Your task to perform on an android device: read, delete, or share a saved page in the chrome app Image 0: 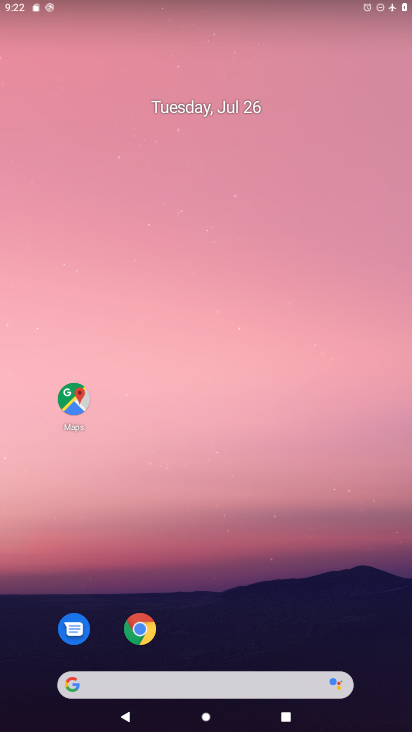
Step 0: click (144, 632)
Your task to perform on an android device: read, delete, or share a saved page in the chrome app Image 1: 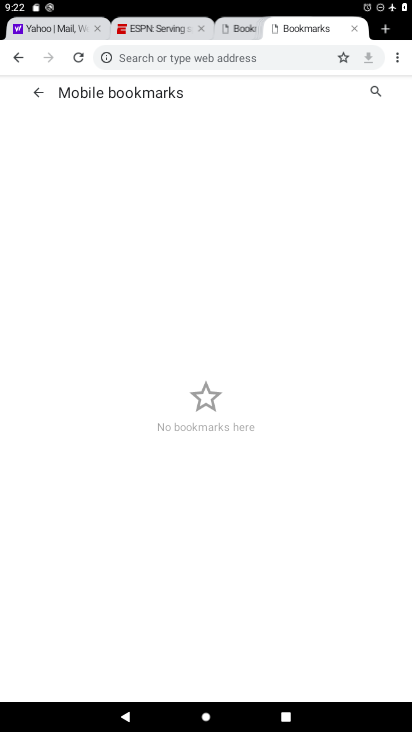
Step 1: drag from (393, 52) to (291, 262)
Your task to perform on an android device: read, delete, or share a saved page in the chrome app Image 2: 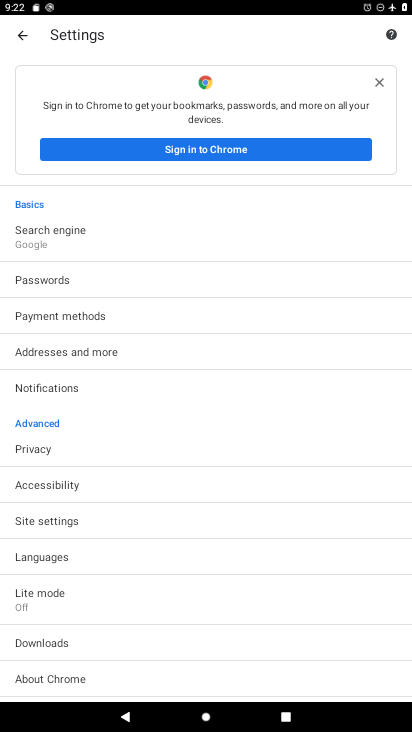
Step 2: drag from (69, 600) to (57, 320)
Your task to perform on an android device: read, delete, or share a saved page in the chrome app Image 3: 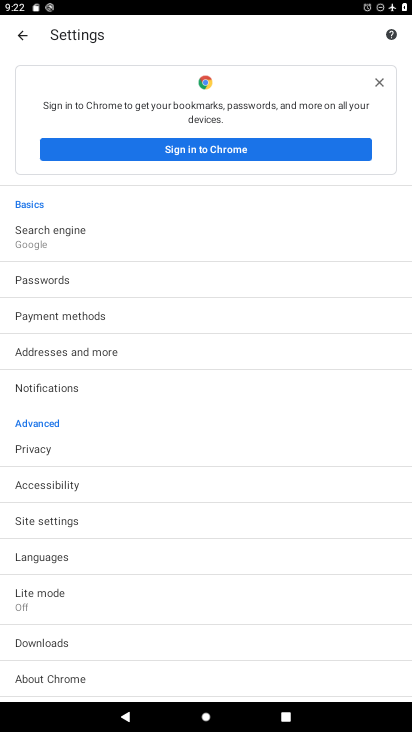
Step 3: click (45, 639)
Your task to perform on an android device: read, delete, or share a saved page in the chrome app Image 4: 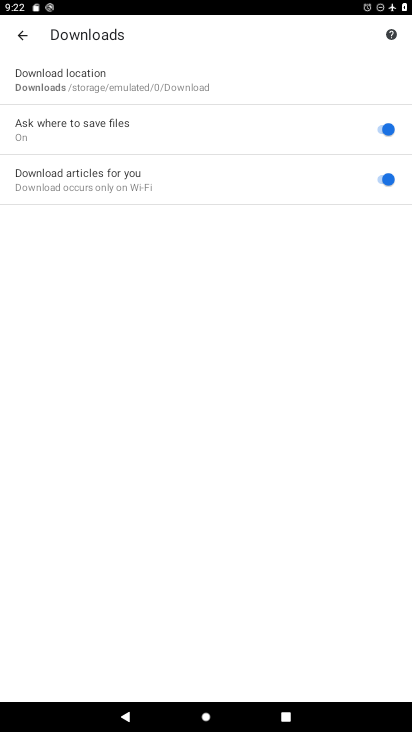
Step 4: task complete